Your task to perform on an android device: Open Maps and search for coffee Image 0: 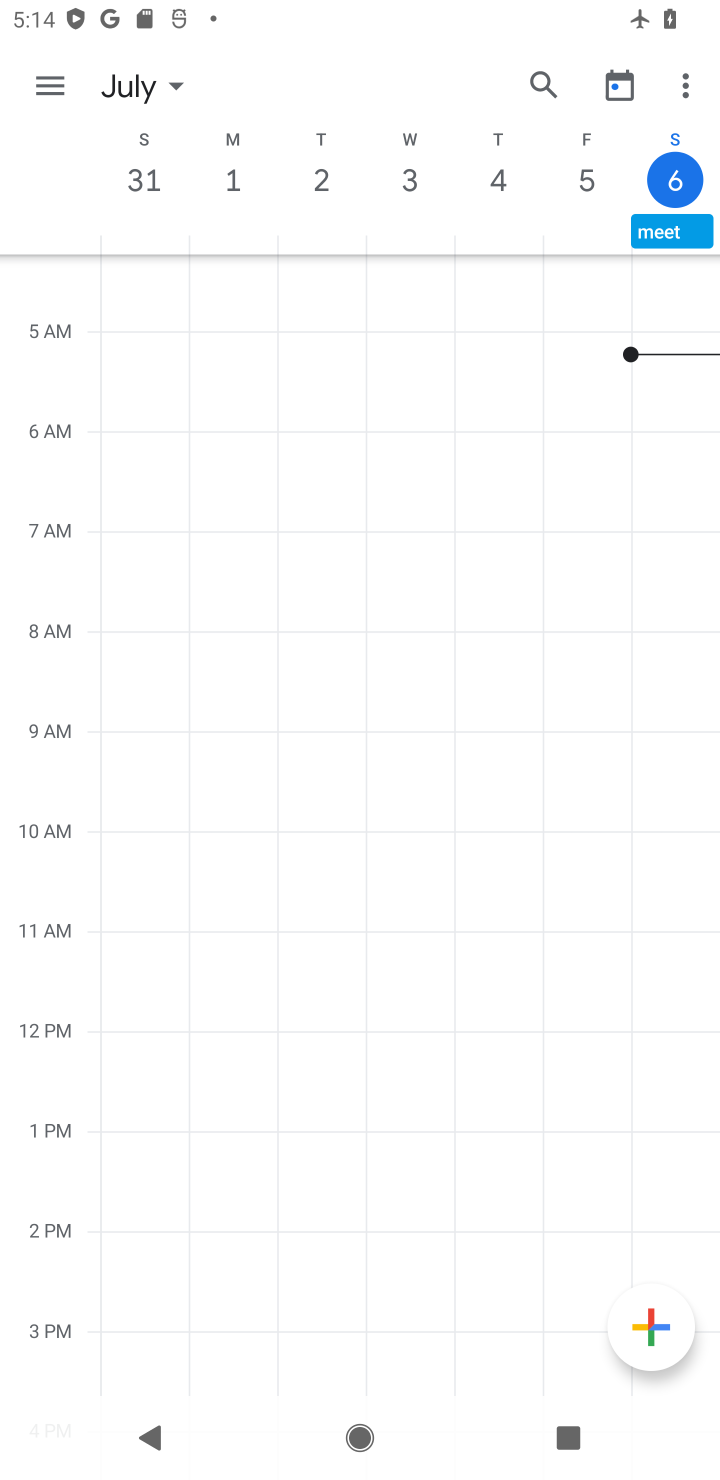
Step 0: press home button
Your task to perform on an android device: Open Maps and search for coffee Image 1: 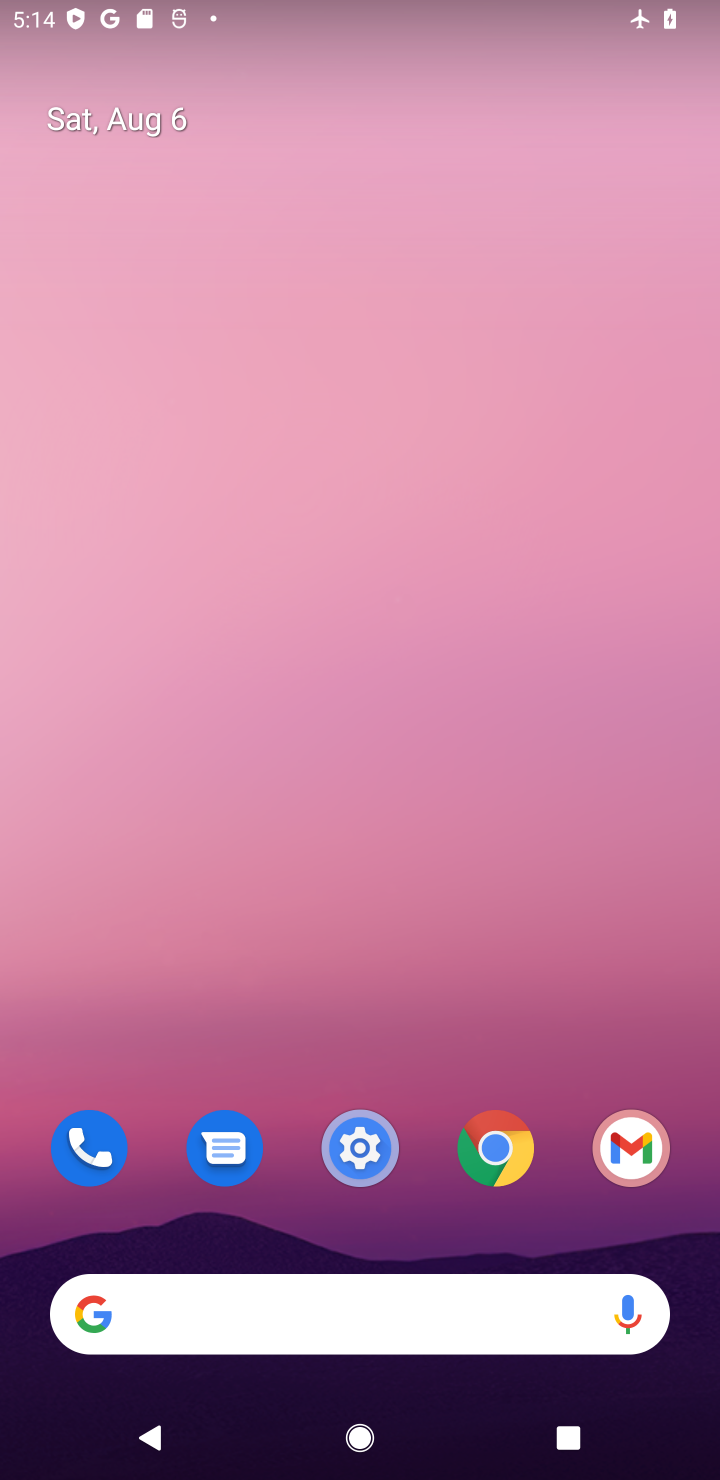
Step 1: drag from (359, 1248) to (638, 220)
Your task to perform on an android device: Open Maps and search for coffee Image 2: 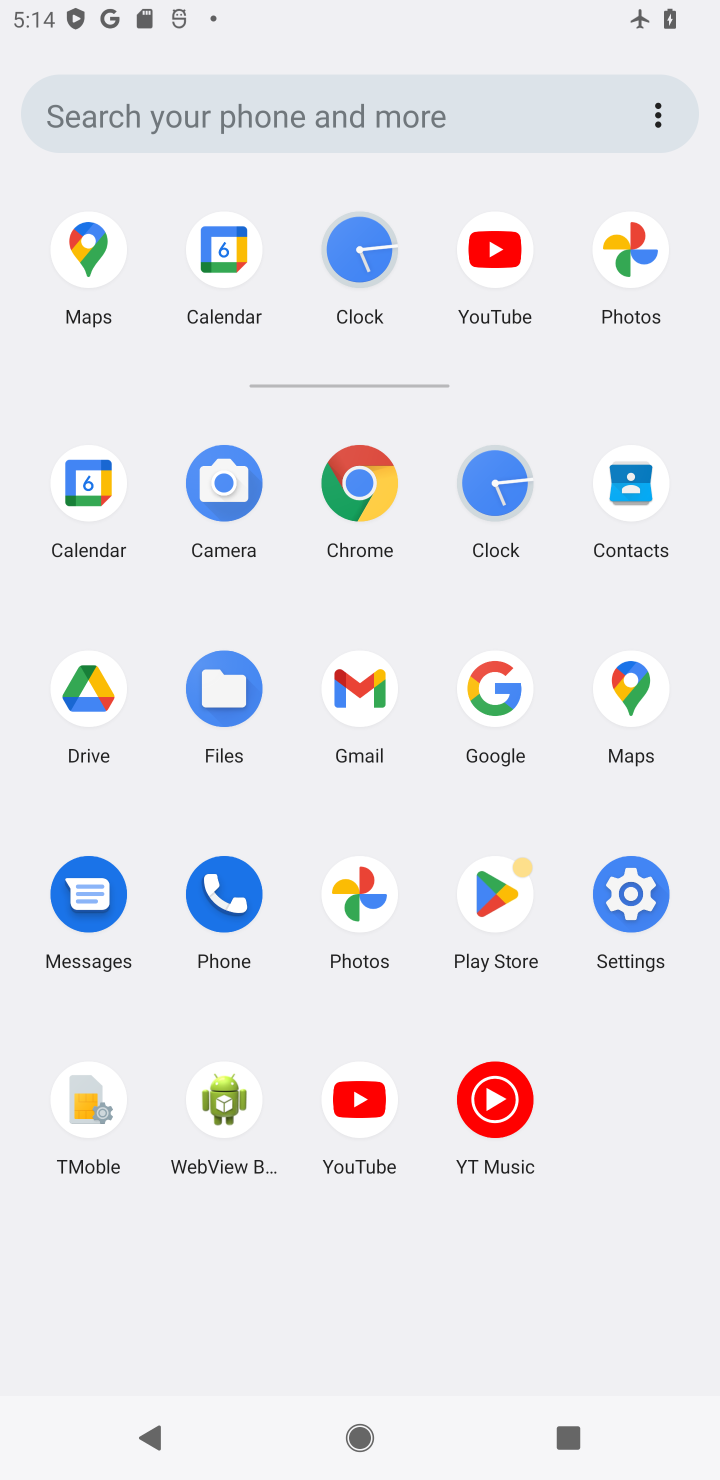
Step 2: click (638, 684)
Your task to perform on an android device: Open Maps and search for coffee Image 3: 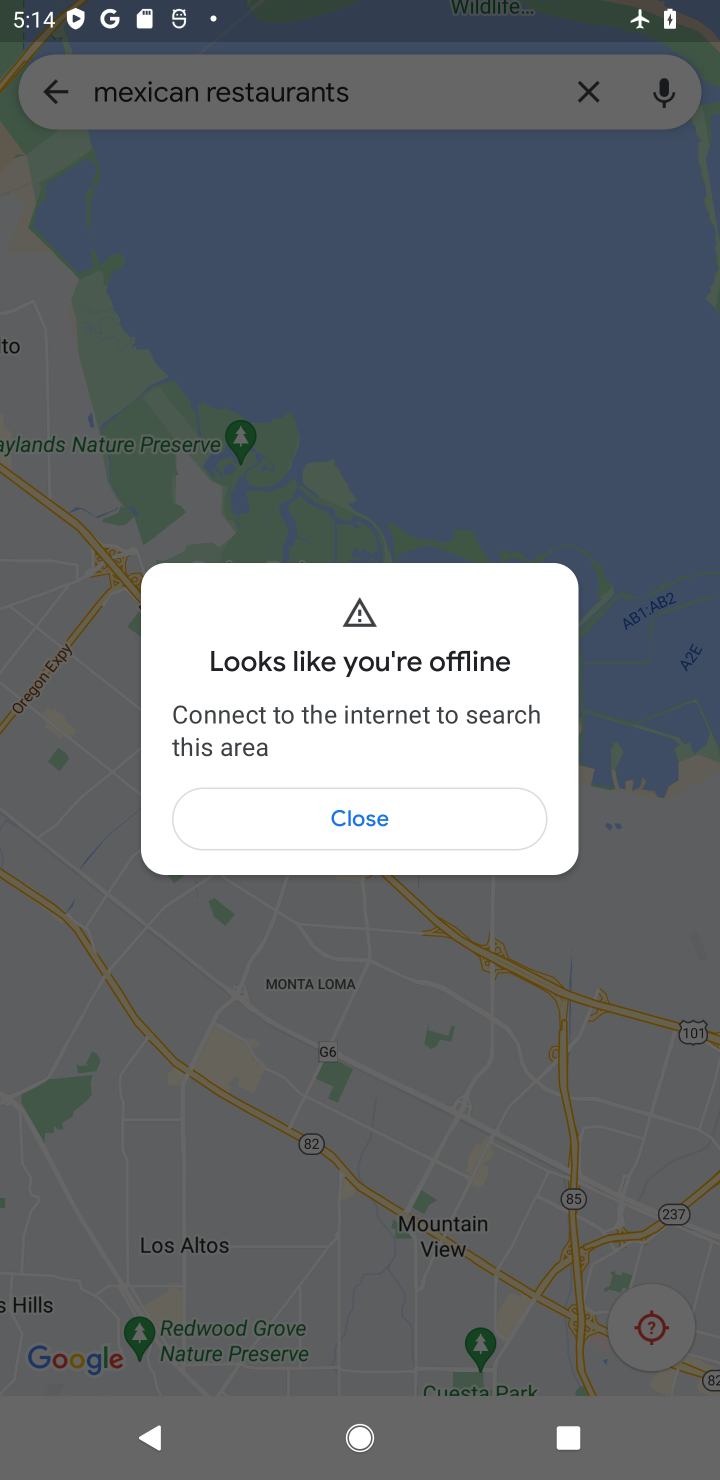
Step 3: click (474, 811)
Your task to perform on an android device: Open Maps and search for coffee Image 4: 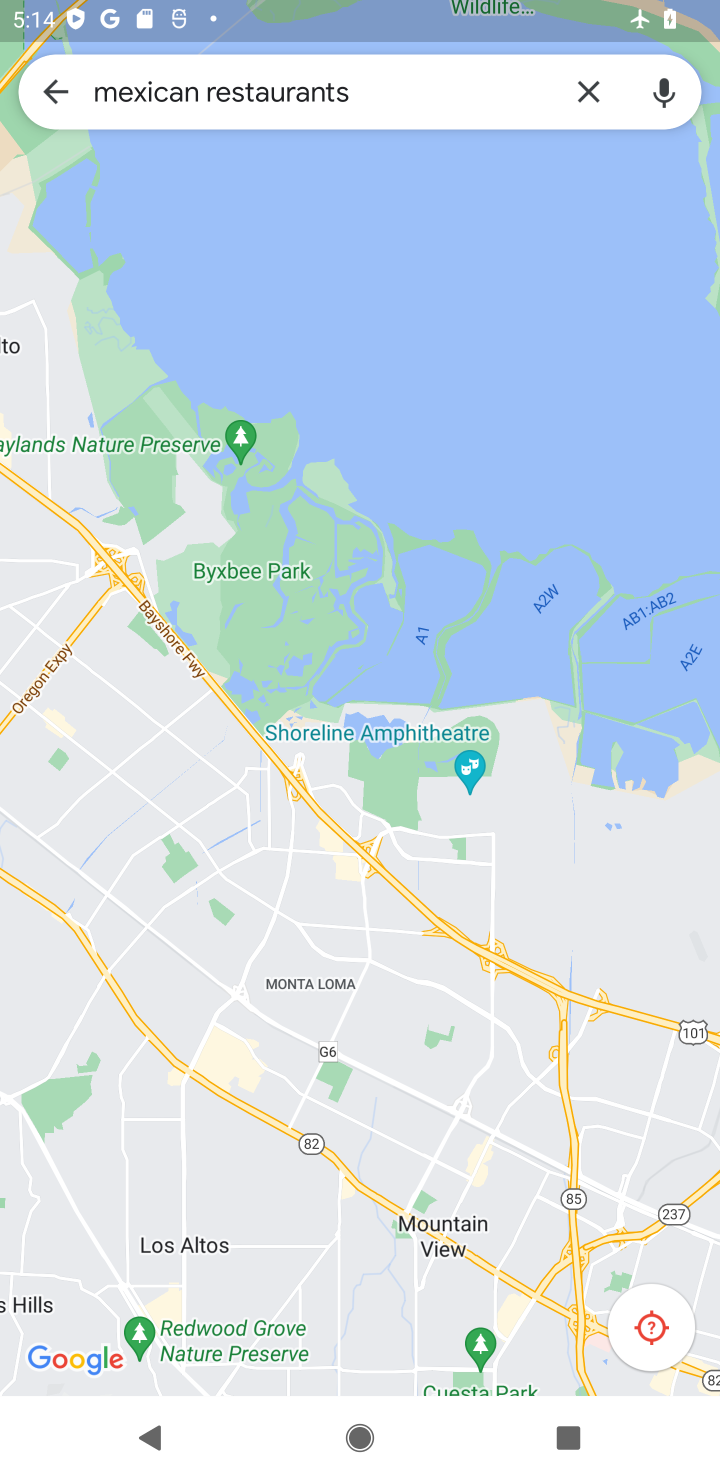
Step 4: click (585, 78)
Your task to perform on an android device: Open Maps and search for coffee Image 5: 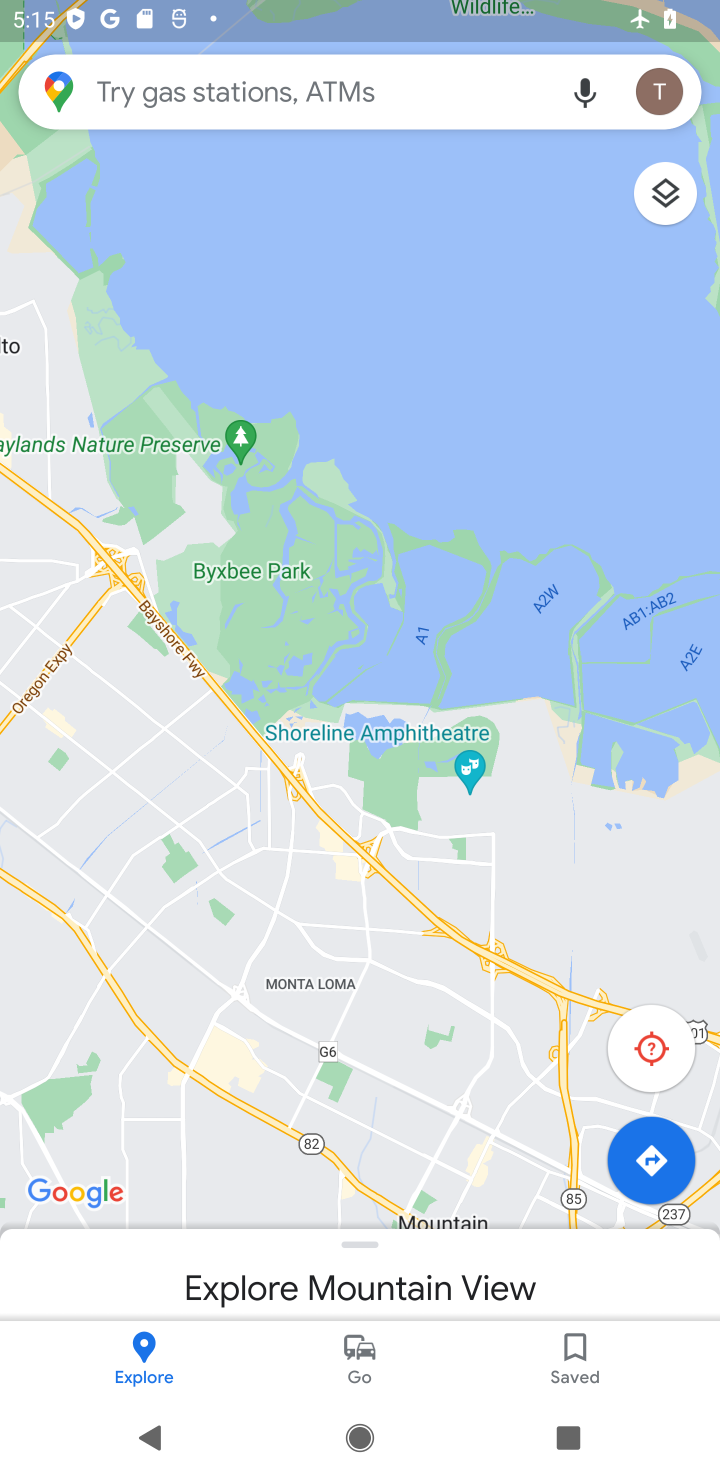
Step 5: click (303, 117)
Your task to perform on an android device: Open Maps and search for coffee Image 6: 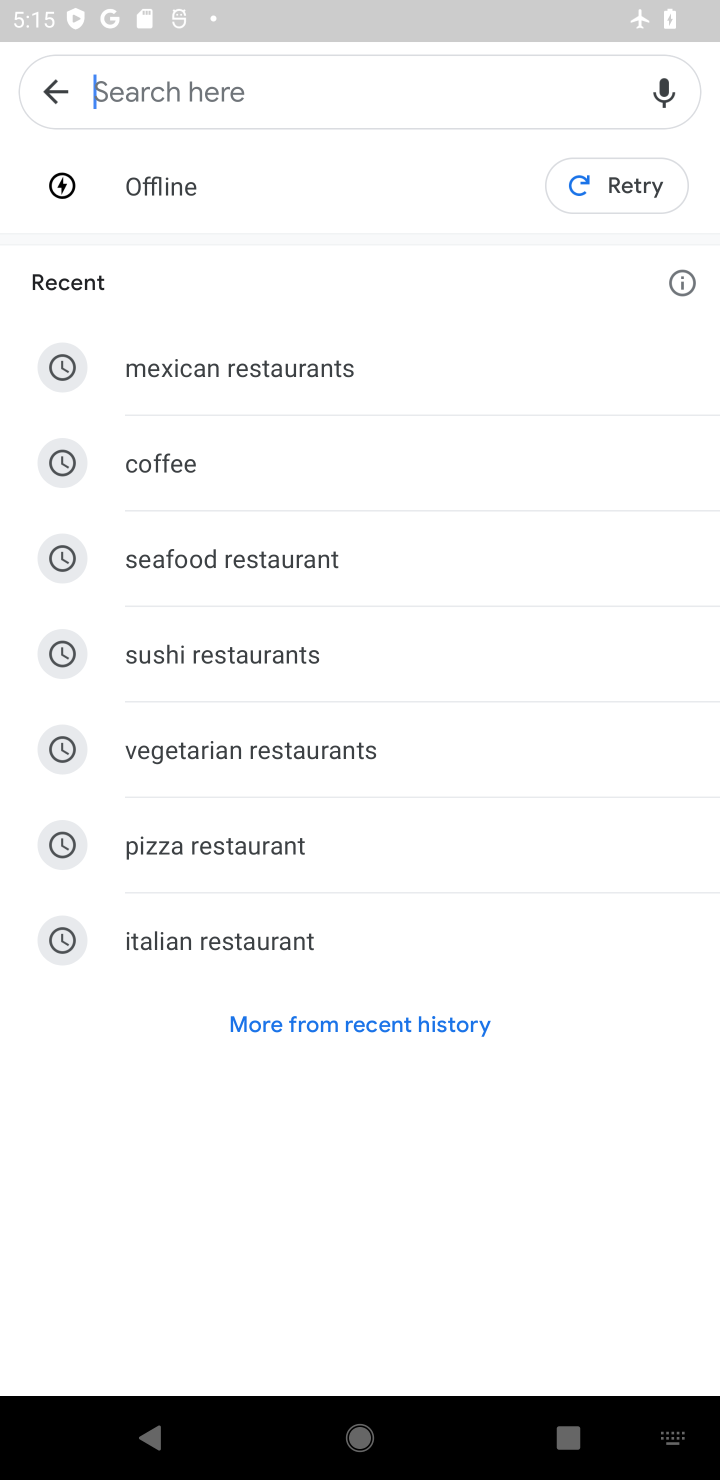
Step 6: click (168, 470)
Your task to perform on an android device: Open Maps and search for coffee Image 7: 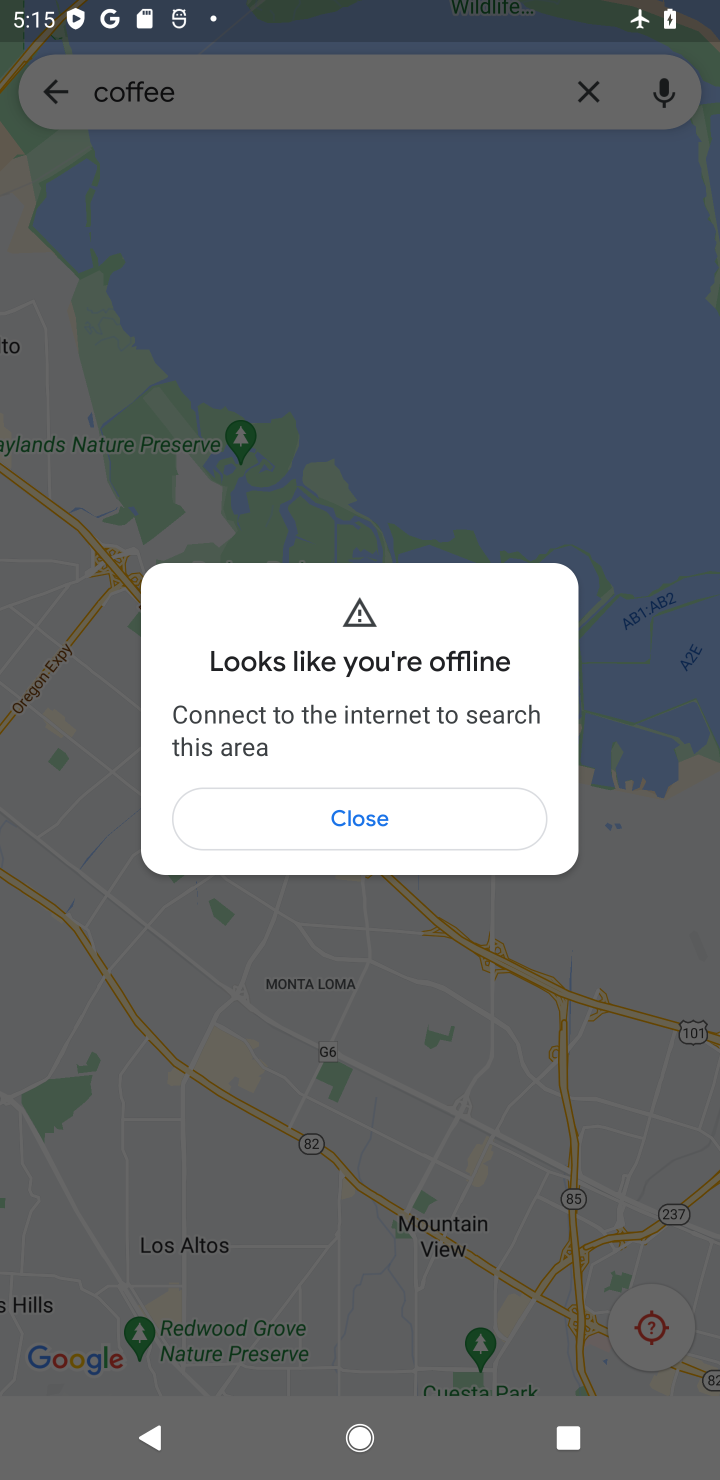
Step 7: task complete